Your task to perform on an android device: Go to Yahoo.com Image 0: 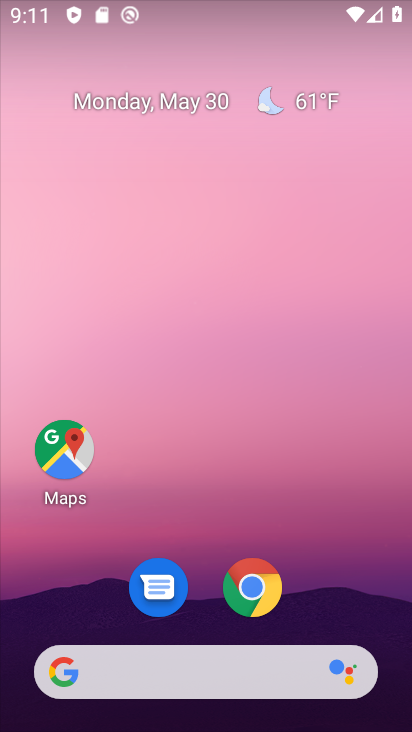
Step 0: click (265, 579)
Your task to perform on an android device: Go to Yahoo.com Image 1: 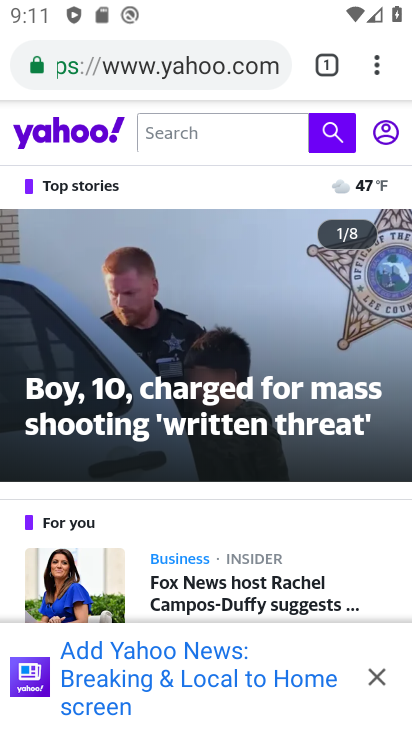
Step 1: task complete